Your task to perform on an android device: change the clock display to show seconds Image 0: 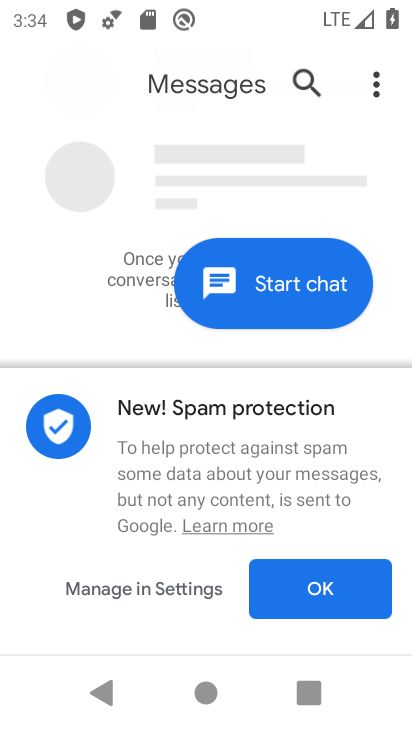
Step 0: click (341, 577)
Your task to perform on an android device: change the clock display to show seconds Image 1: 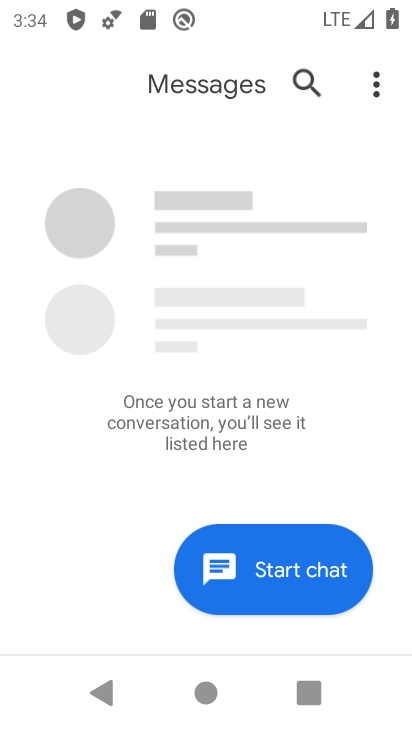
Step 1: press back button
Your task to perform on an android device: change the clock display to show seconds Image 2: 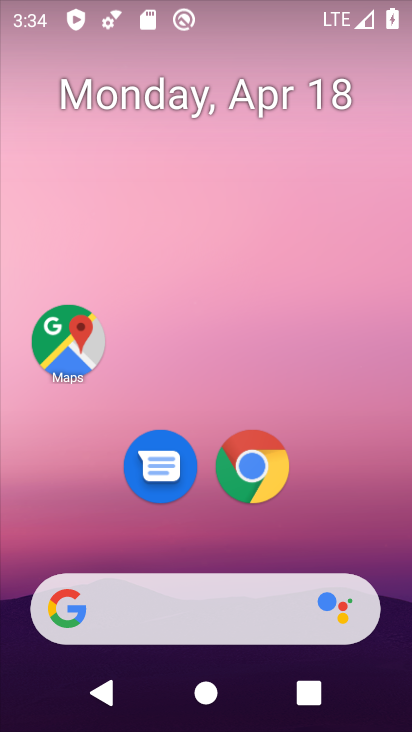
Step 2: drag from (350, 525) to (227, 43)
Your task to perform on an android device: change the clock display to show seconds Image 3: 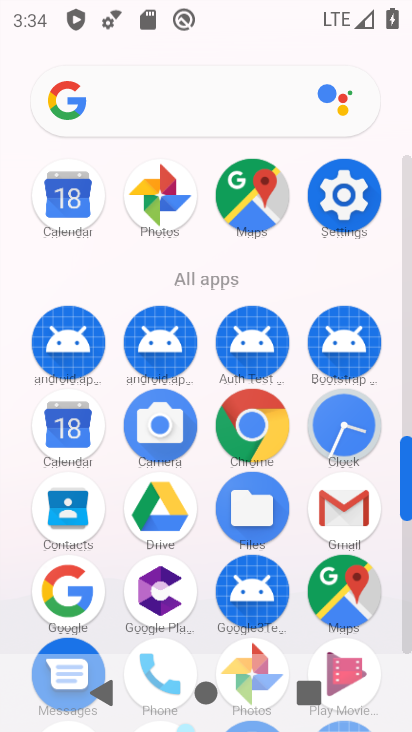
Step 3: click (352, 454)
Your task to perform on an android device: change the clock display to show seconds Image 4: 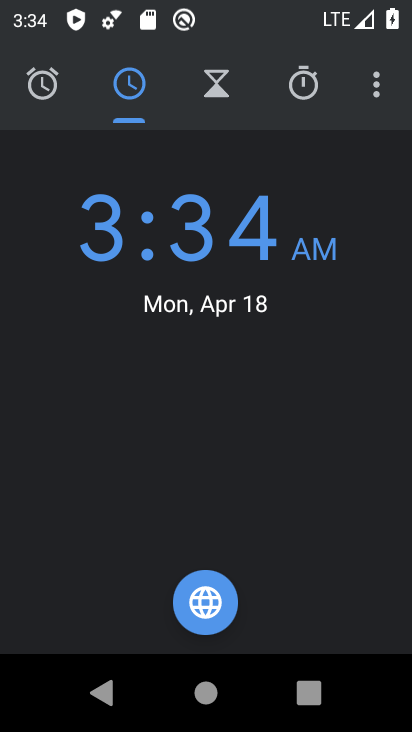
Step 4: click (365, 82)
Your task to perform on an android device: change the clock display to show seconds Image 5: 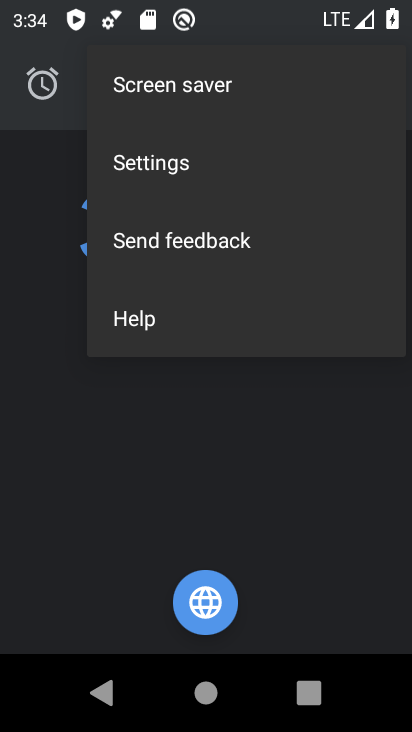
Step 5: click (270, 179)
Your task to perform on an android device: change the clock display to show seconds Image 6: 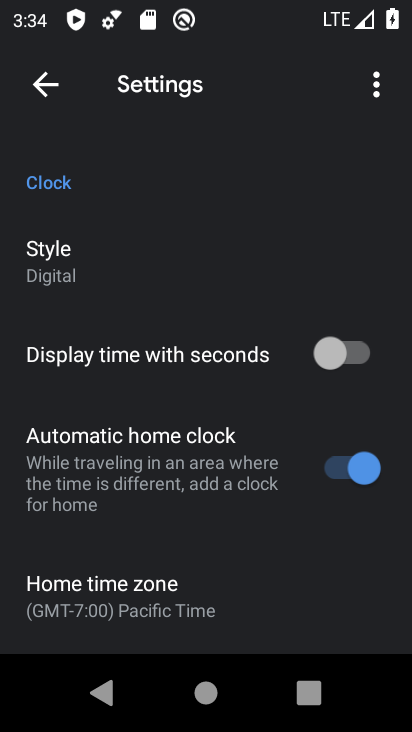
Step 6: click (307, 356)
Your task to perform on an android device: change the clock display to show seconds Image 7: 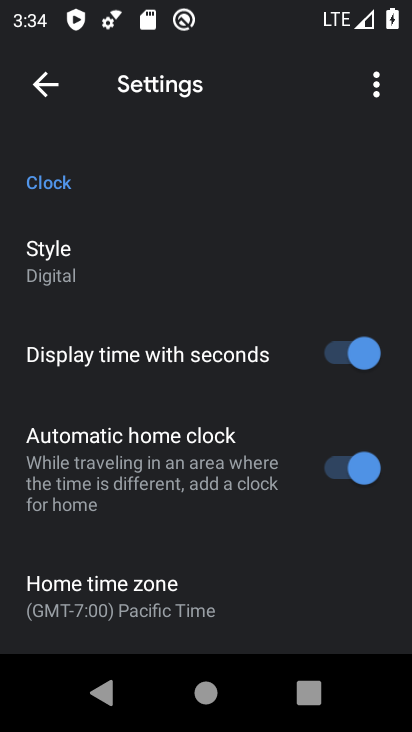
Step 7: task complete